Your task to perform on an android device: choose inbox layout in the gmail app Image 0: 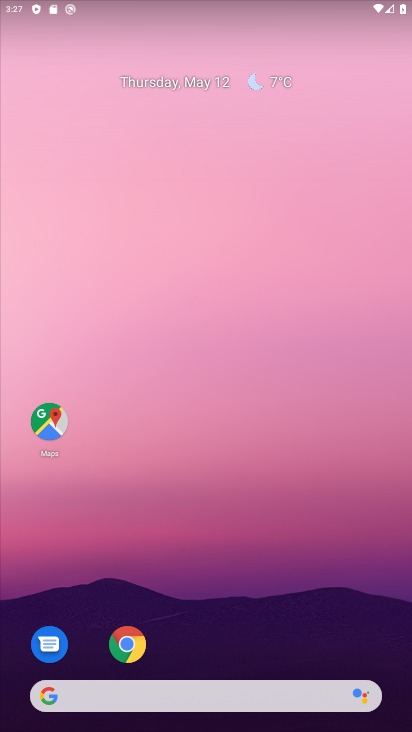
Step 0: press home button
Your task to perform on an android device: choose inbox layout in the gmail app Image 1: 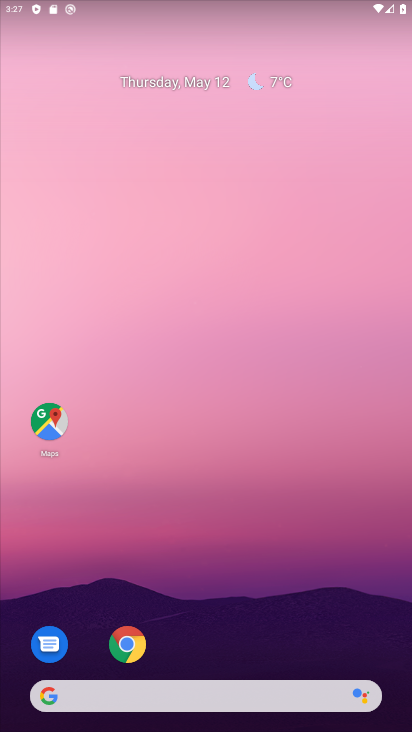
Step 1: drag from (203, 655) to (204, 5)
Your task to perform on an android device: choose inbox layout in the gmail app Image 2: 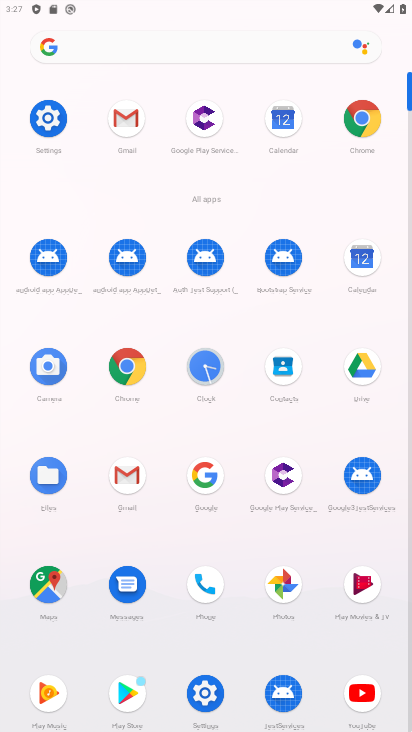
Step 2: click (121, 107)
Your task to perform on an android device: choose inbox layout in the gmail app Image 3: 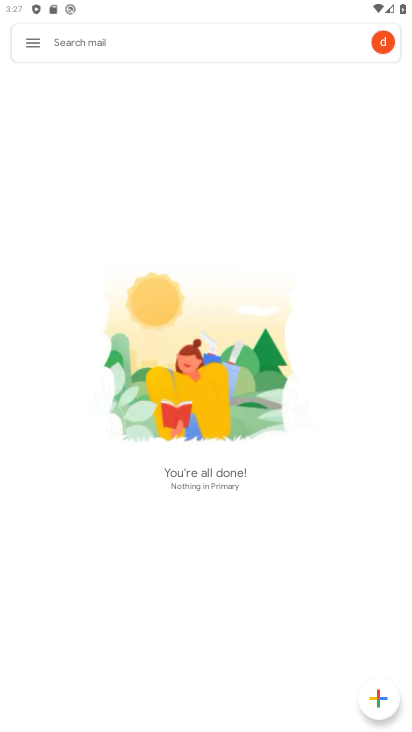
Step 3: click (28, 37)
Your task to perform on an android device: choose inbox layout in the gmail app Image 4: 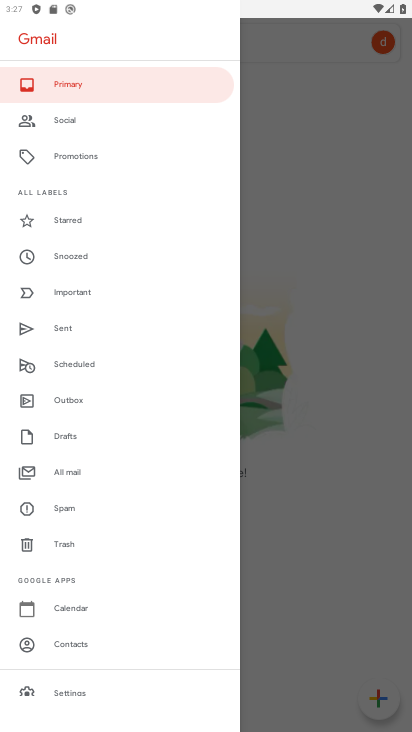
Step 4: drag from (105, 599) to (119, 91)
Your task to perform on an android device: choose inbox layout in the gmail app Image 5: 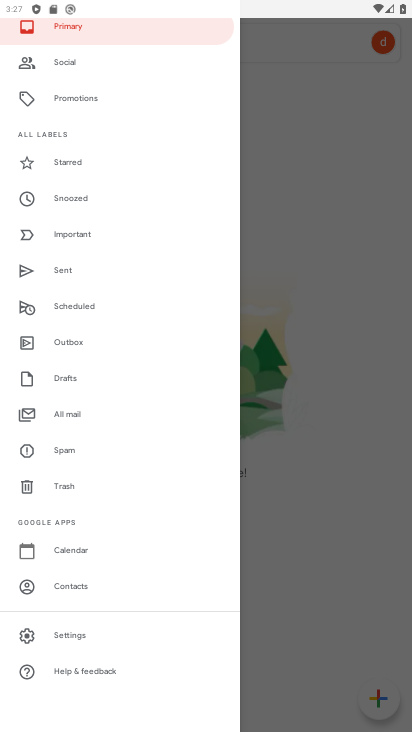
Step 5: click (92, 629)
Your task to perform on an android device: choose inbox layout in the gmail app Image 6: 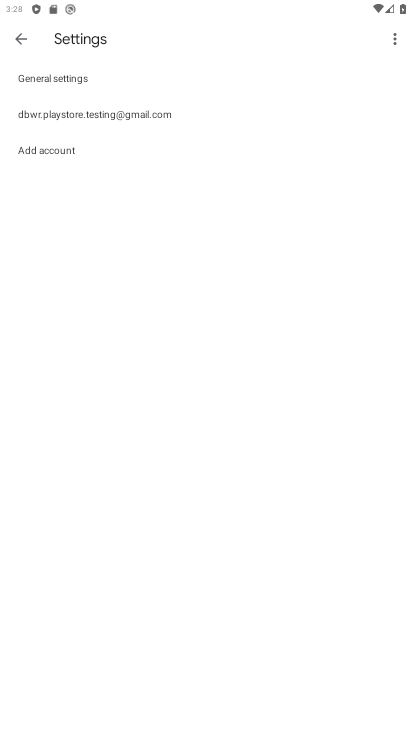
Step 6: click (168, 107)
Your task to perform on an android device: choose inbox layout in the gmail app Image 7: 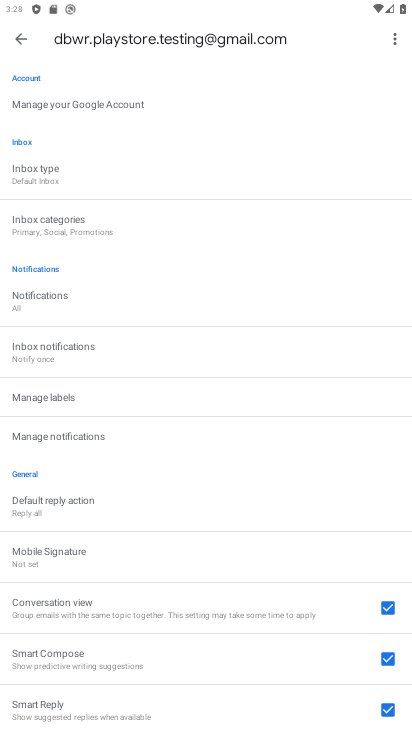
Step 7: click (72, 177)
Your task to perform on an android device: choose inbox layout in the gmail app Image 8: 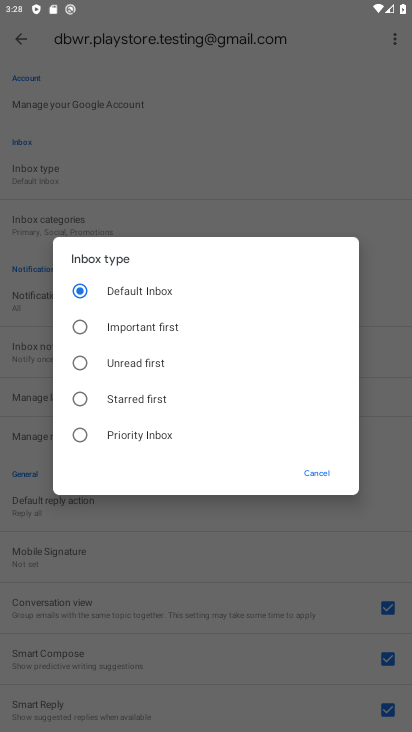
Step 8: click (77, 433)
Your task to perform on an android device: choose inbox layout in the gmail app Image 9: 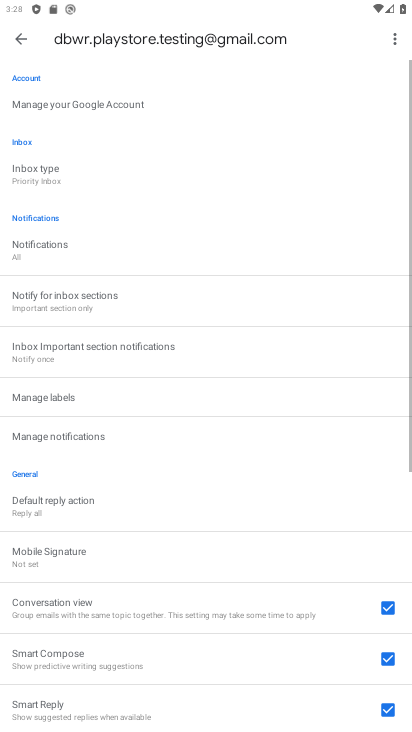
Step 9: task complete